Your task to perform on an android device: delete a single message in the gmail app Image 0: 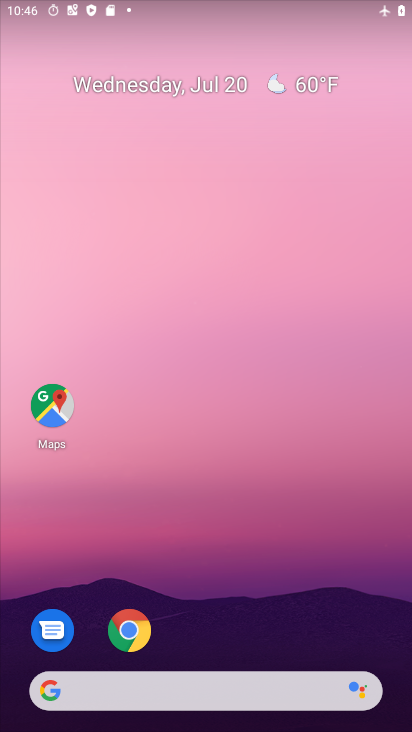
Step 0: drag from (200, 641) to (257, 95)
Your task to perform on an android device: delete a single message in the gmail app Image 1: 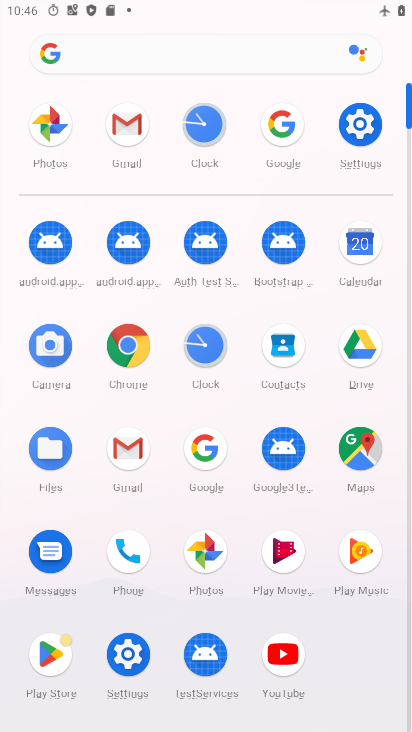
Step 1: click (127, 121)
Your task to perform on an android device: delete a single message in the gmail app Image 2: 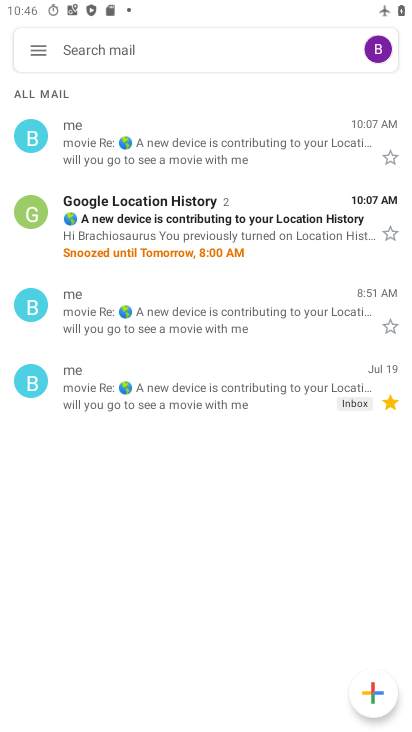
Step 2: click (150, 139)
Your task to perform on an android device: delete a single message in the gmail app Image 3: 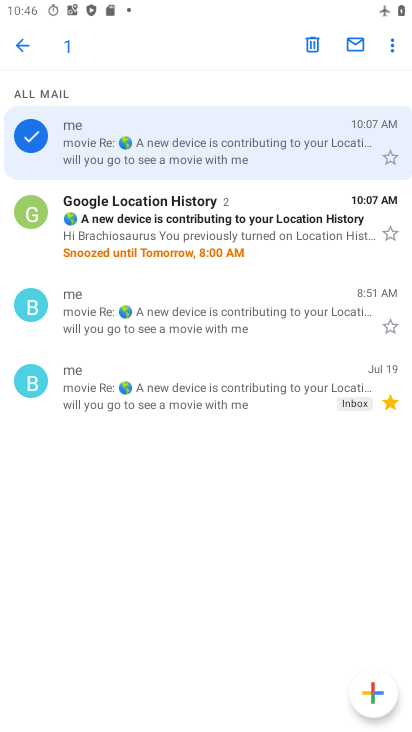
Step 3: click (309, 48)
Your task to perform on an android device: delete a single message in the gmail app Image 4: 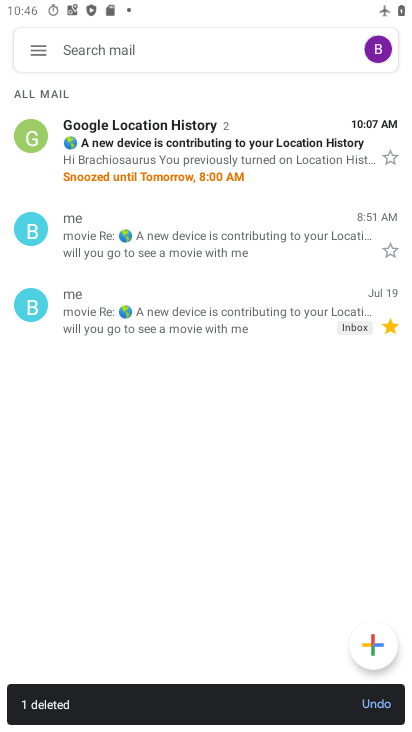
Step 4: task complete